Your task to perform on an android device: open app "LiveIn - Share Your Moment" Image 0: 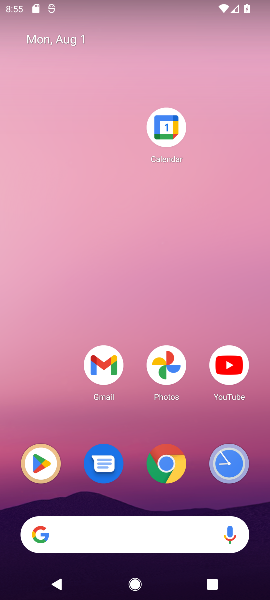
Step 0: click (46, 461)
Your task to perform on an android device: open app "LiveIn - Share Your Moment" Image 1: 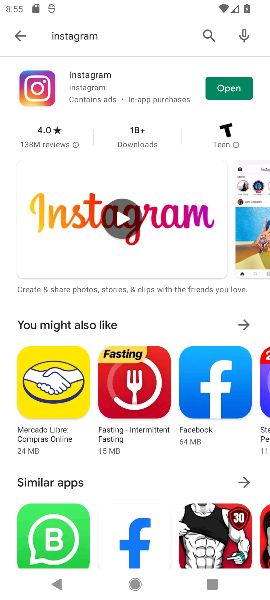
Step 1: click (204, 45)
Your task to perform on an android device: open app "LiveIn - Share Your Moment" Image 2: 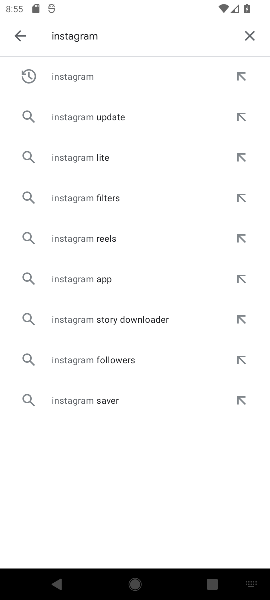
Step 2: click (258, 34)
Your task to perform on an android device: open app "LiveIn - Share Your Moment" Image 3: 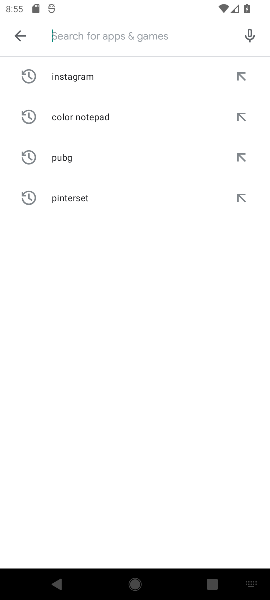
Step 3: click (250, 34)
Your task to perform on an android device: open app "LiveIn - Share Your Moment" Image 4: 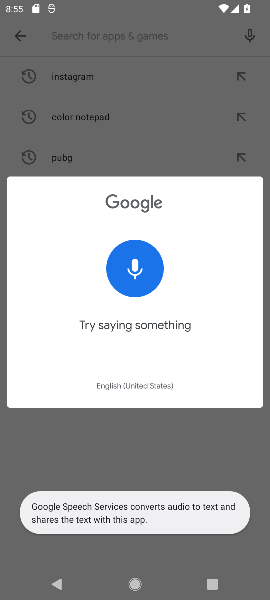
Step 4: type "live in"
Your task to perform on an android device: open app "LiveIn - Share Your Moment" Image 5: 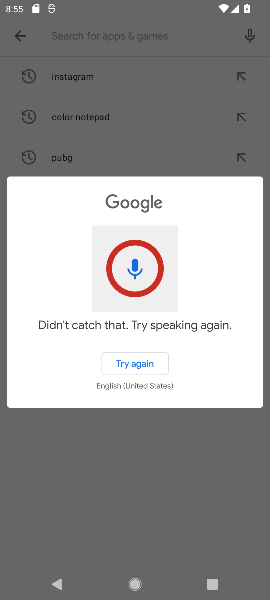
Step 5: click (144, 148)
Your task to perform on an android device: open app "LiveIn - Share Your Moment" Image 6: 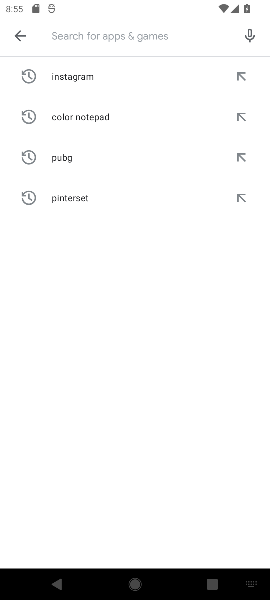
Step 6: click (170, 40)
Your task to perform on an android device: open app "LiveIn - Share Your Moment" Image 7: 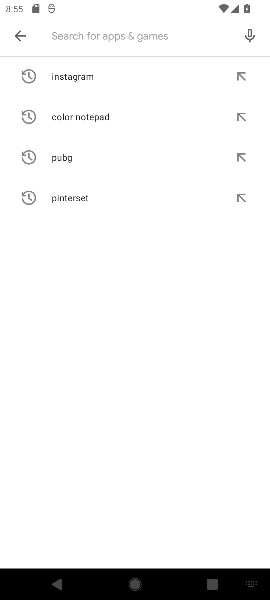
Step 7: type "livein"
Your task to perform on an android device: open app "LiveIn - Share Your Moment" Image 8: 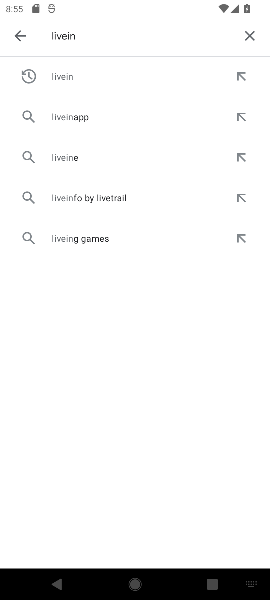
Step 8: click (91, 80)
Your task to perform on an android device: open app "LiveIn - Share Your Moment" Image 9: 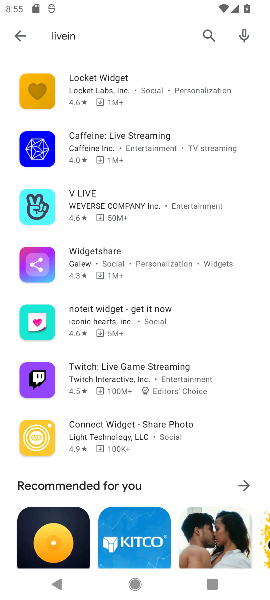
Step 9: task complete